Your task to perform on an android device: Show me recent news Image 0: 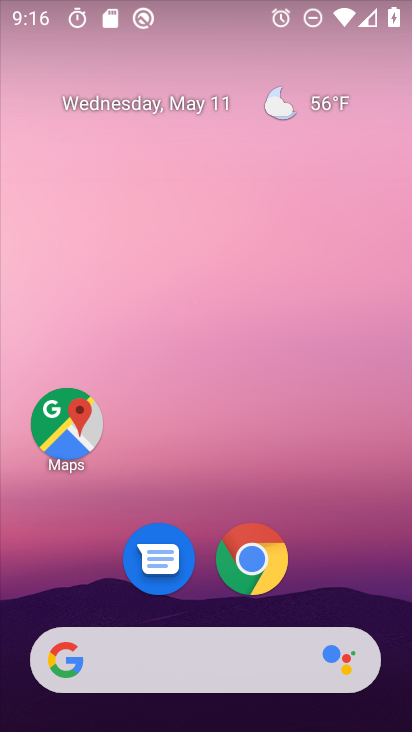
Step 0: click (253, 674)
Your task to perform on an android device: Show me recent news Image 1: 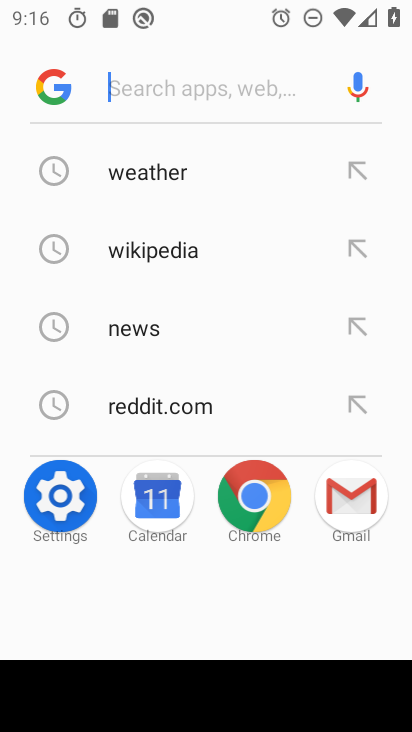
Step 1: click (163, 90)
Your task to perform on an android device: Show me recent news Image 2: 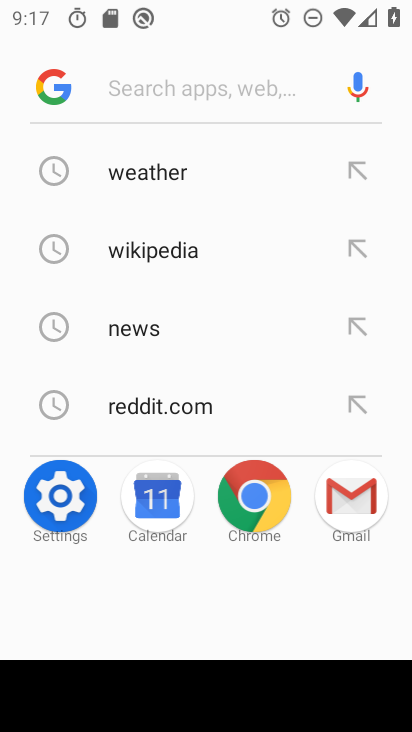
Step 2: type "recent news"
Your task to perform on an android device: Show me recent news Image 3: 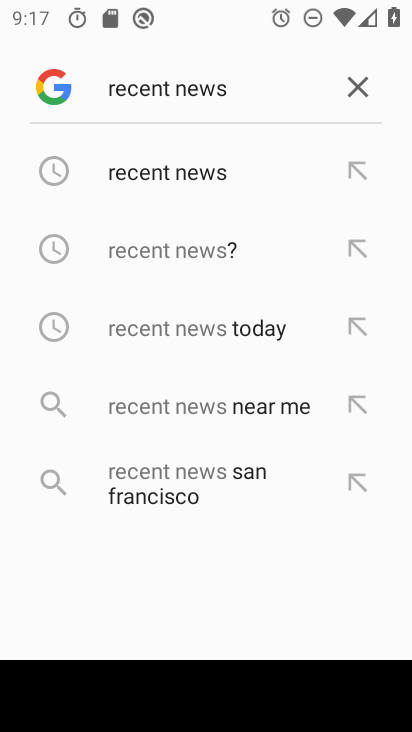
Step 3: click (210, 177)
Your task to perform on an android device: Show me recent news Image 4: 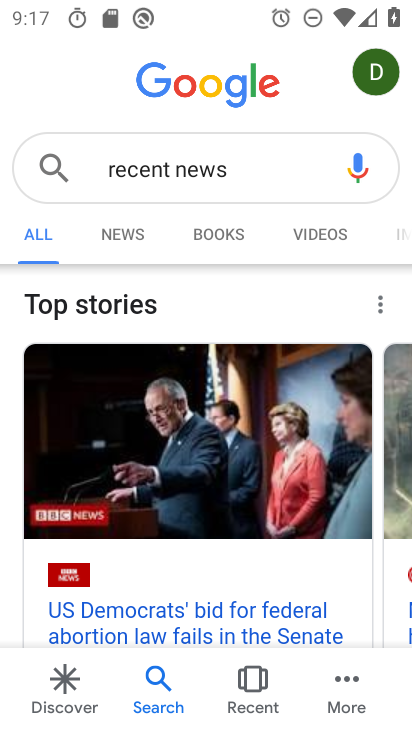
Step 4: click (116, 231)
Your task to perform on an android device: Show me recent news Image 5: 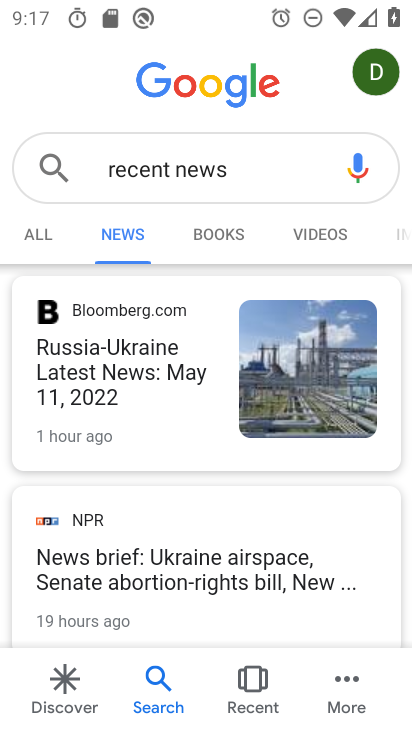
Step 5: task complete